Your task to perform on an android device: check out phone information Image 0: 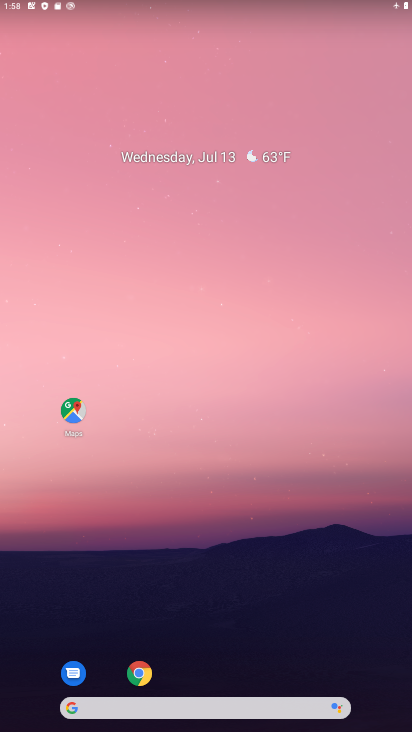
Step 0: drag from (232, 615) to (230, 254)
Your task to perform on an android device: check out phone information Image 1: 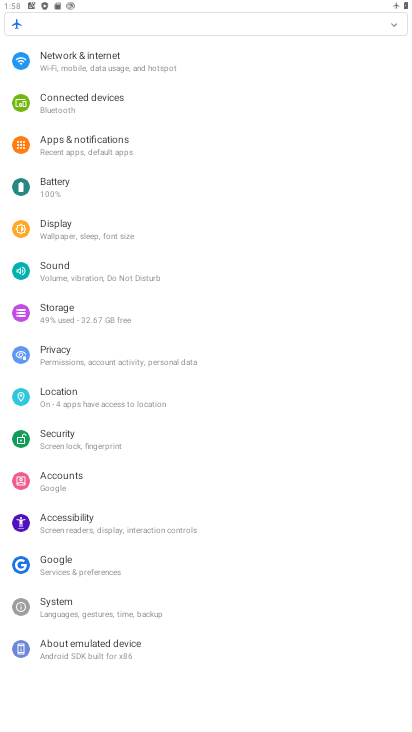
Step 1: click (111, 649)
Your task to perform on an android device: check out phone information Image 2: 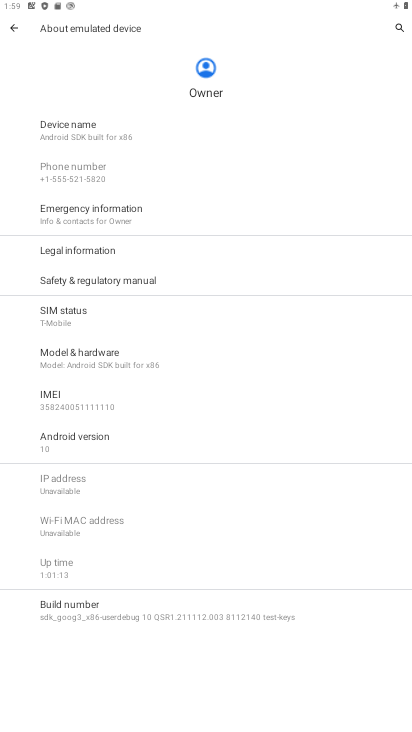
Step 2: task complete